Your task to perform on an android device: Open Google Maps Image 0: 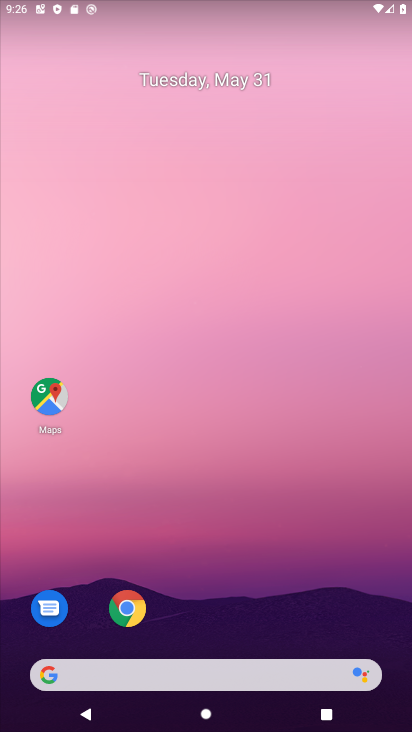
Step 0: click (45, 402)
Your task to perform on an android device: Open Google Maps Image 1: 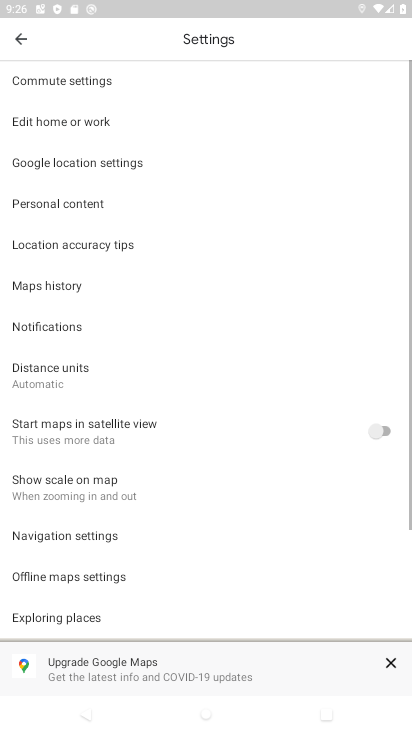
Step 1: task complete